Your task to perform on an android device: change timer sound Image 0: 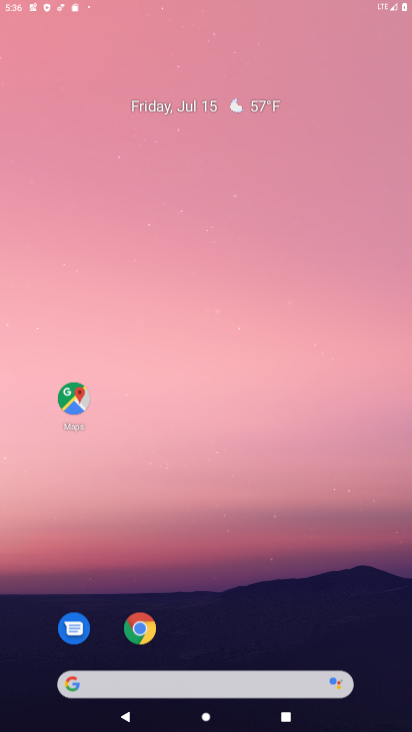
Step 0: press home button
Your task to perform on an android device: change timer sound Image 1: 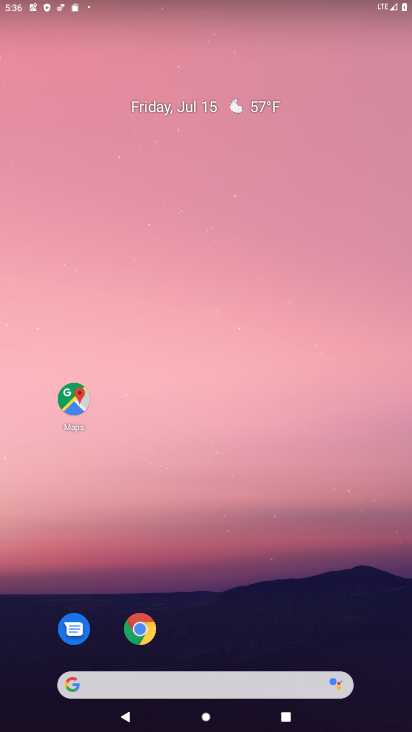
Step 1: drag from (272, 652) to (282, 63)
Your task to perform on an android device: change timer sound Image 2: 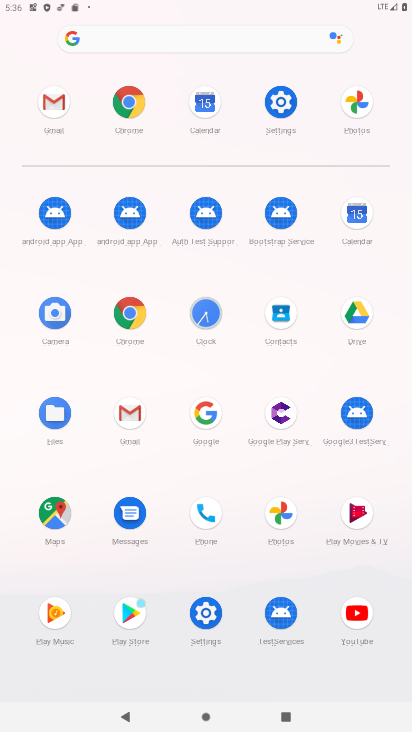
Step 2: click (207, 314)
Your task to perform on an android device: change timer sound Image 3: 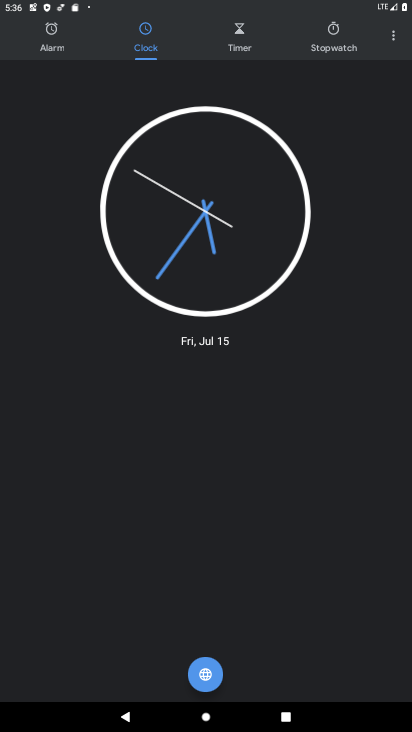
Step 3: click (396, 41)
Your task to perform on an android device: change timer sound Image 4: 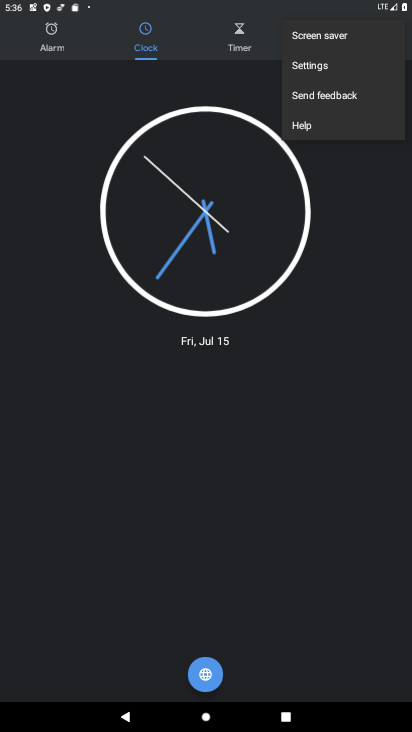
Step 4: click (316, 71)
Your task to perform on an android device: change timer sound Image 5: 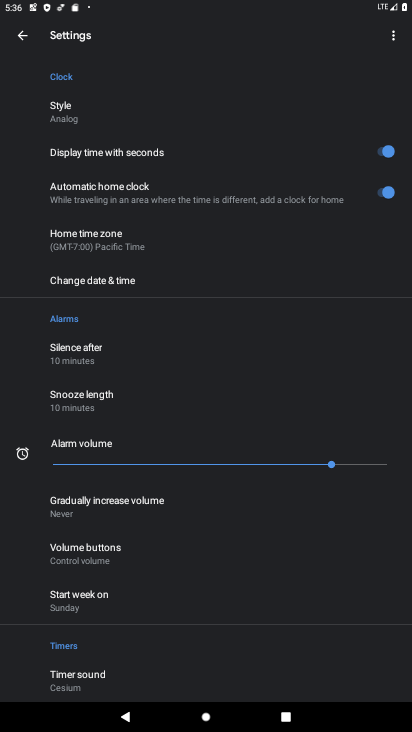
Step 5: drag from (262, 563) to (279, 238)
Your task to perform on an android device: change timer sound Image 6: 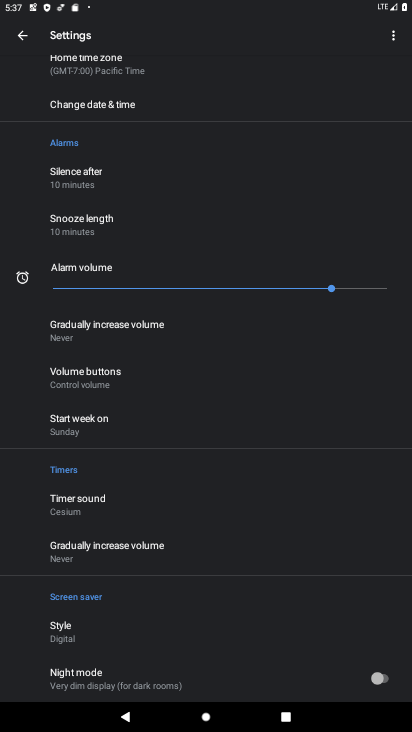
Step 6: click (68, 499)
Your task to perform on an android device: change timer sound Image 7: 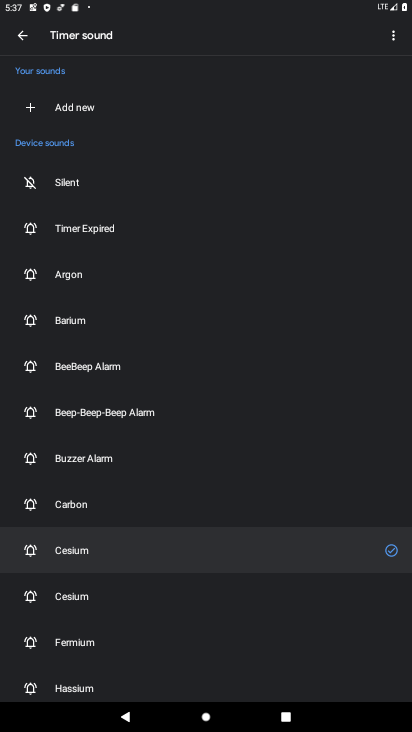
Step 7: click (65, 598)
Your task to perform on an android device: change timer sound Image 8: 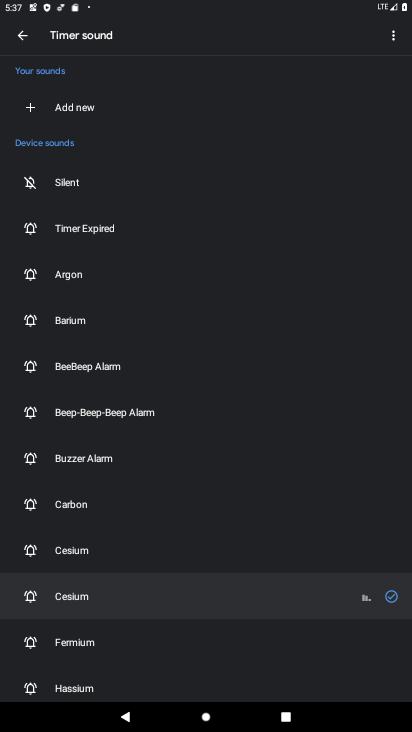
Step 8: task complete